Your task to perform on an android device: Open Yahoo.com Image 0: 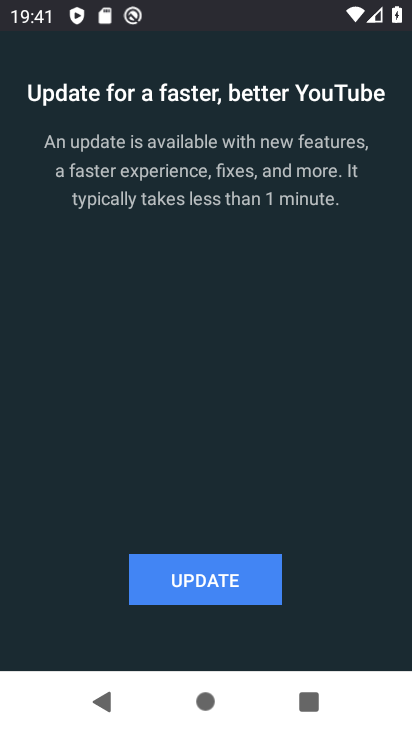
Step 0: press home button
Your task to perform on an android device: Open Yahoo.com Image 1: 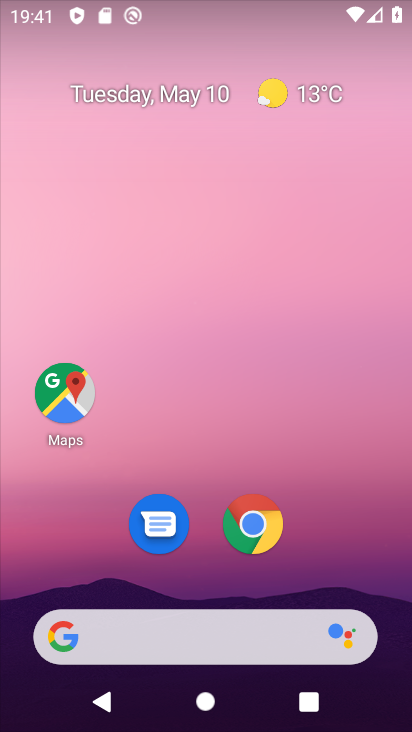
Step 1: click (233, 637)
Your task to perform on an android device: Open Yahoo.com Image 2: 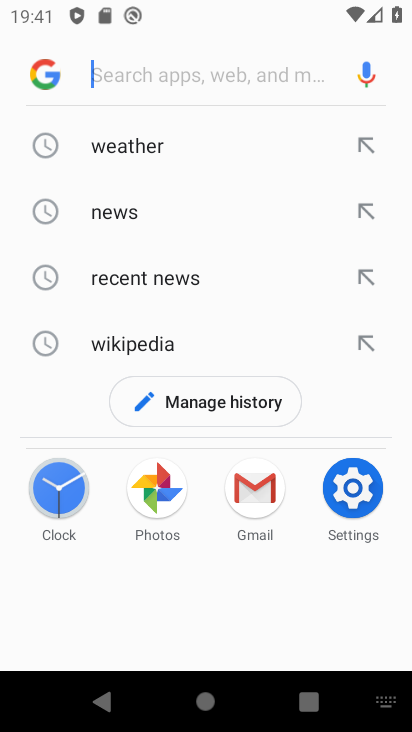
Step 2: type "yahoo.com"
Your task to perform on an android device: Open Yahoo.com Image 3: 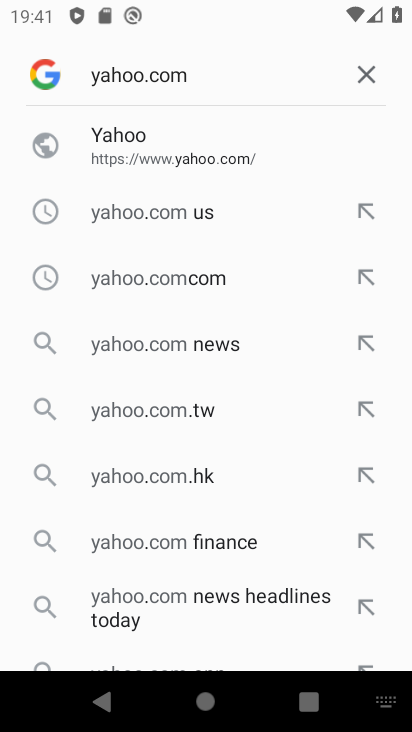
Step 3: click (110, 140)
Your task to perform on an android device: Open Yahoo.com Image 4: 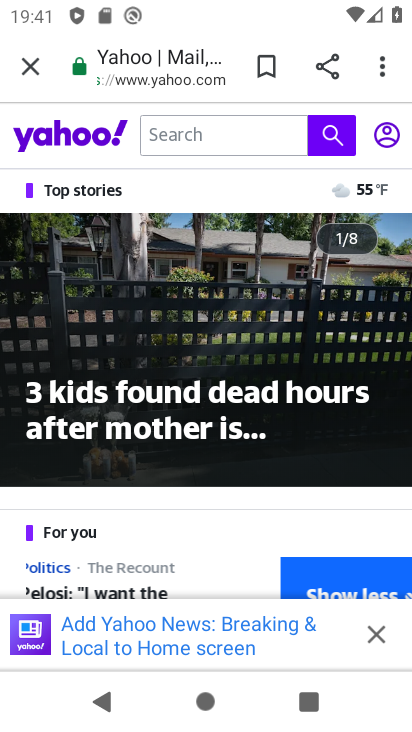
Step 4: task complete